Your task to perform on an android device: Is it going to rain this weekend? Image 0: 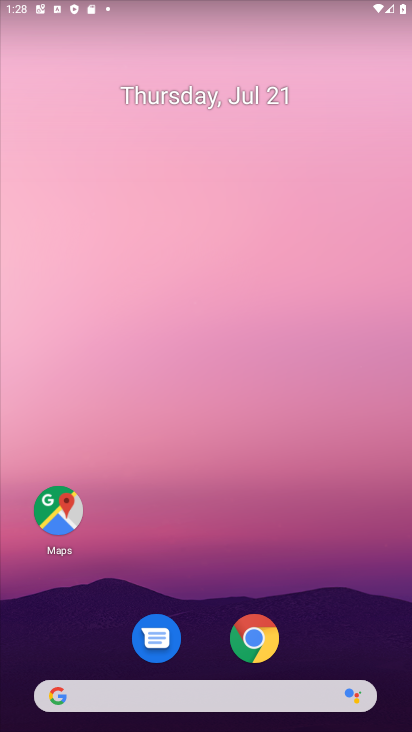
Step 0: click (270, 692)
Your task to perform on an android device: Is it going to rain this weekend? Image 1: 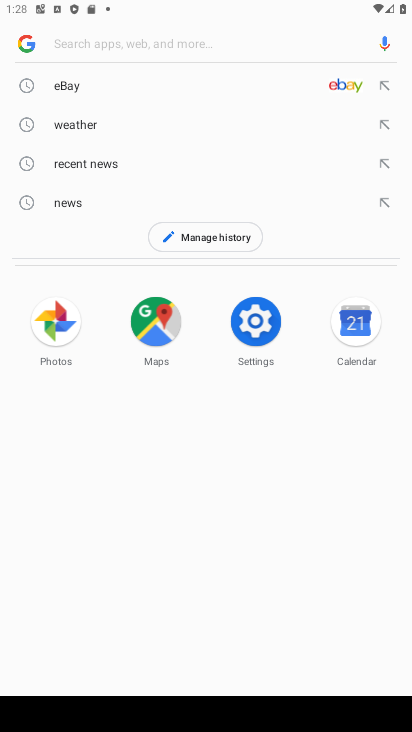
Step 1: type "Is it going to rain this weekend?"
Your task to perform on an android device: Is it going to rain this weekend? Image 2: 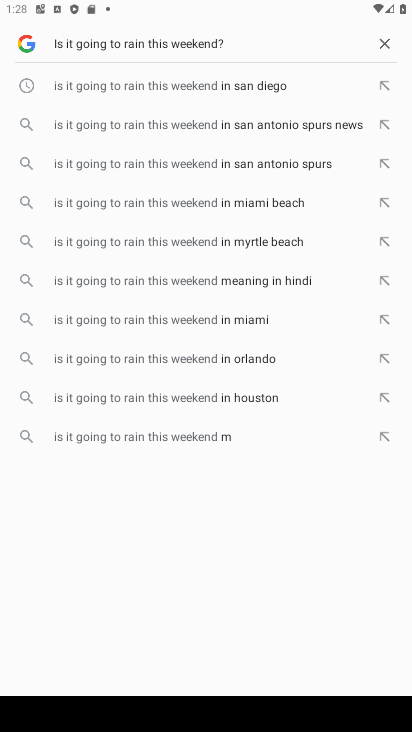
Step 2: type "Is it going to rain this weekend?"
Your task to perform on an android device: Is it going to rain this weekend? Image 3: 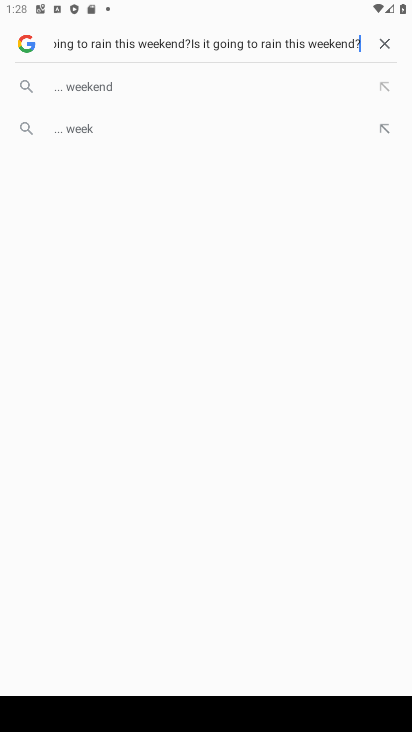
Step 3: press enter
Your task to perform on an android device: Is it going to rain this weekend? Image 4: 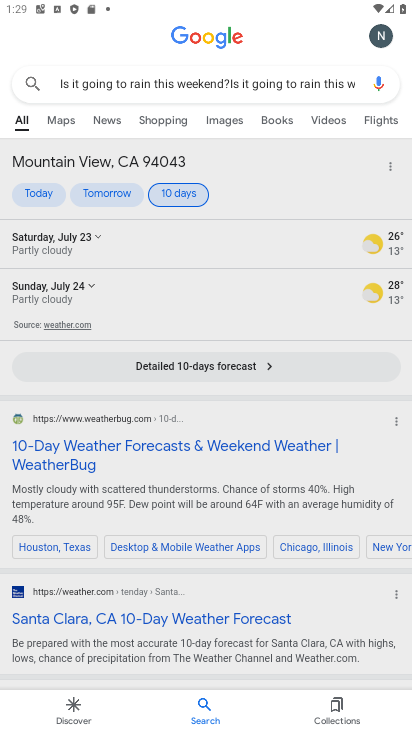
Step 4: task complete